Your task to perform on an android device: Go to Yahoo.com Image 0: 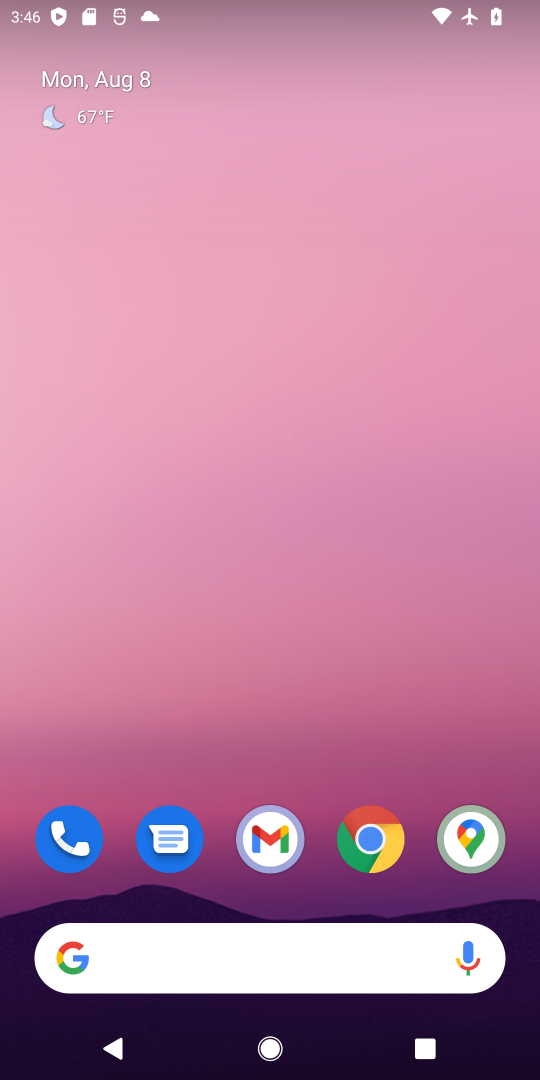
Step 0: press home button
Your task to perform on an android device: Go to Yahoo.com Image 1: 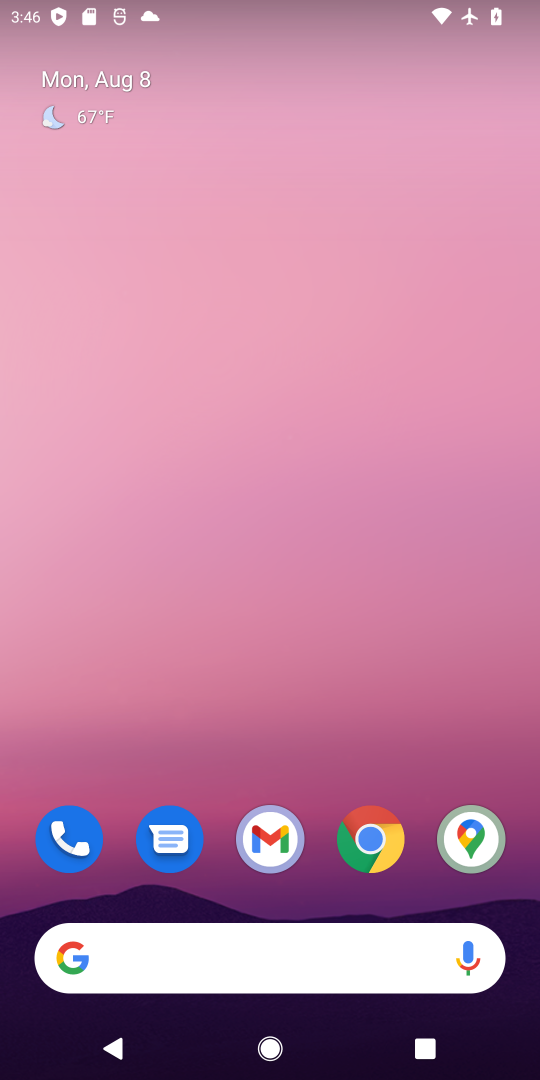
Step 1: drag from (416, 781) to (419, 255)
Your task to perform on an android device: Go to Yahoo.com Image 2: 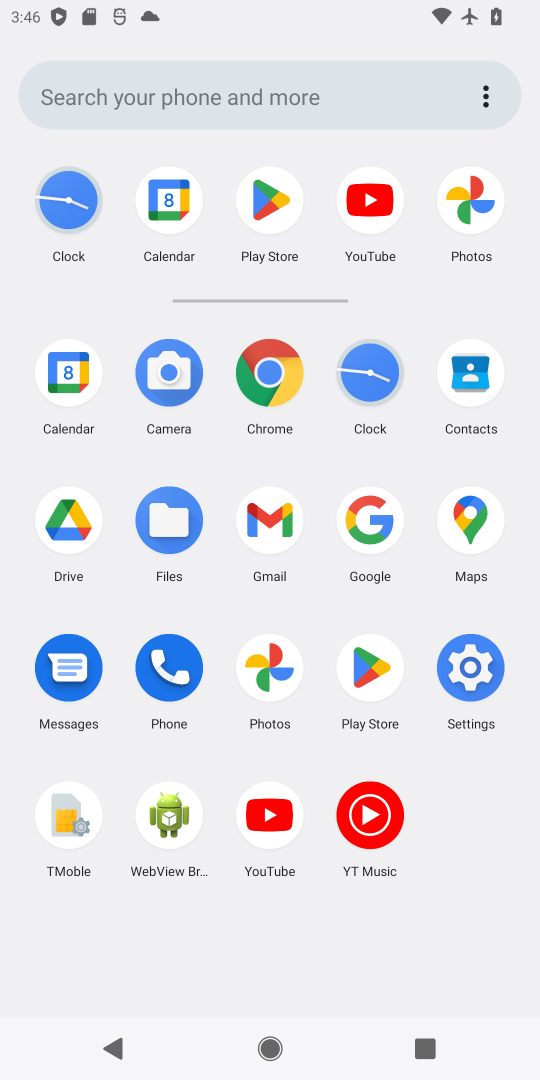
Step 2: click (269, 380)
Your task to perform on an android device: Go to Yahoo.com Image 3: 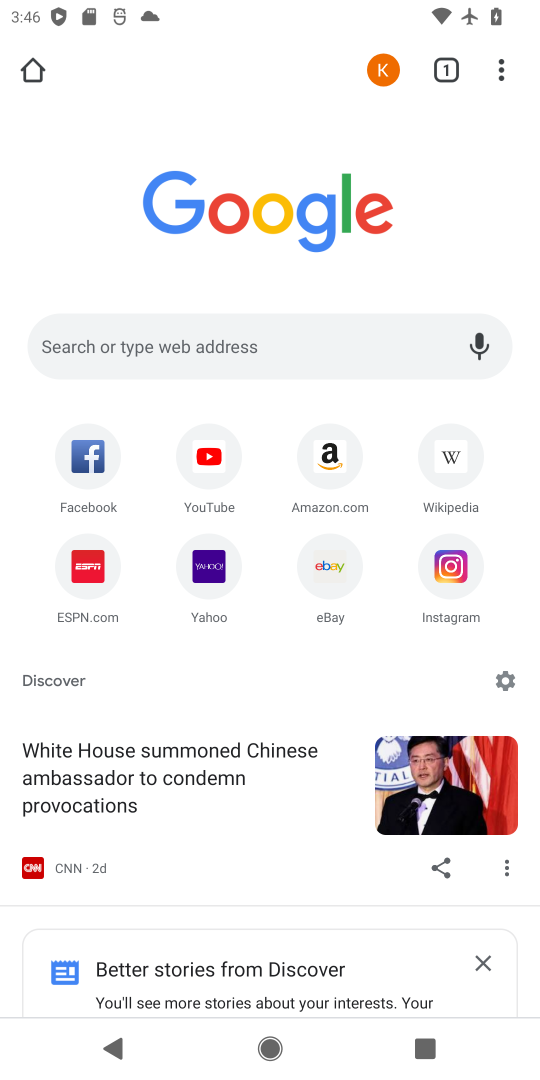
Step 3: click (325, 342)
Your task to perform on an android device: Go to Yahoo.com Image 4: 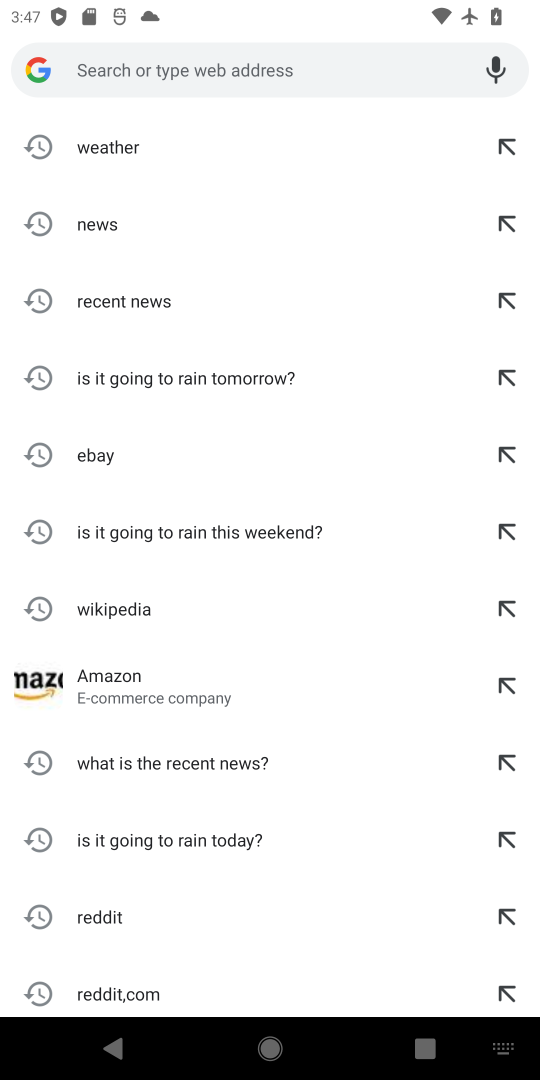
Step 4: type "yahoo.com"
Your task to perform on an android device: Go to Yahoo.com Image 5: 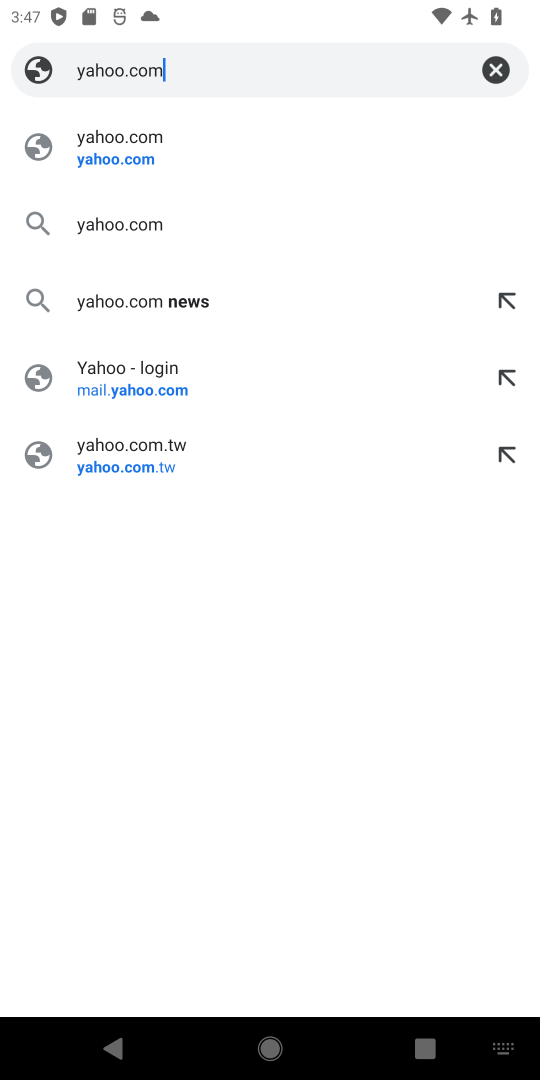
Step 5: click (163, 151)
Your task to perform on an android device: Go to Yahoo.com Image 6: 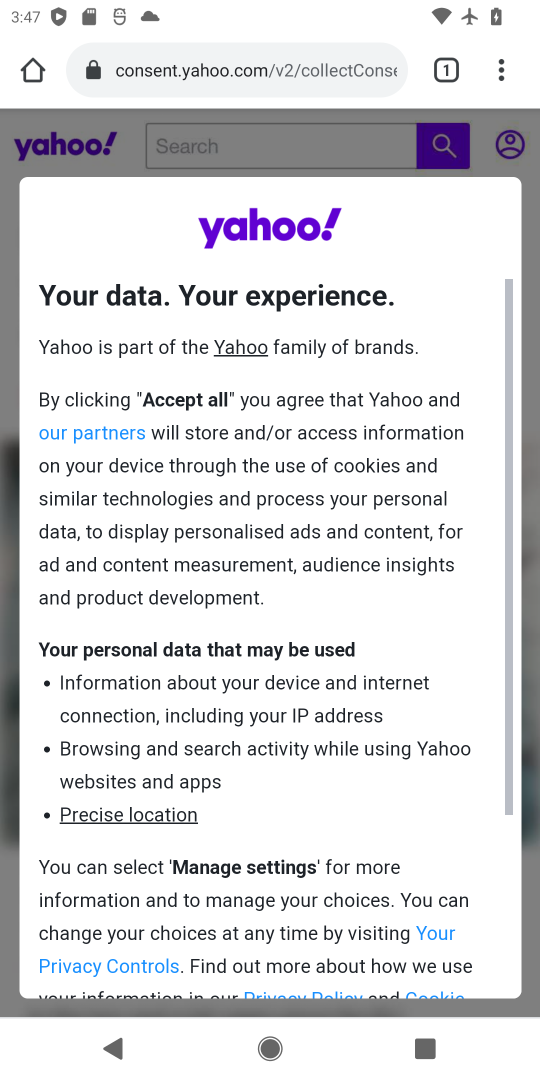
Step 6: task complete